Your task to perform on an android device: Do I have any events tomorrow? Image 0: 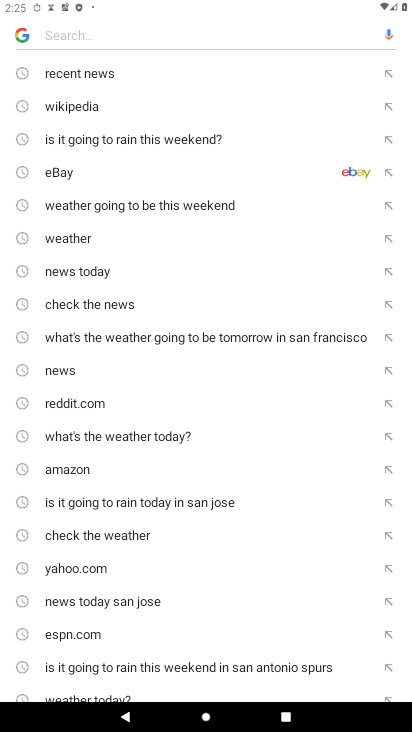
Step 0: press home button
Your task to perform on an android device: Do I have any events tomorrow? Image 1: 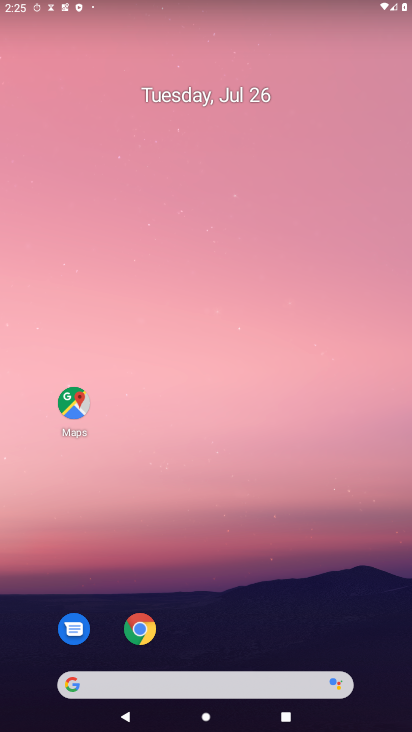
Step 1: drag from (245, 563) to (406, 303)
Your task to perform on an android device: Do I have any events tomorrow? Image 2: 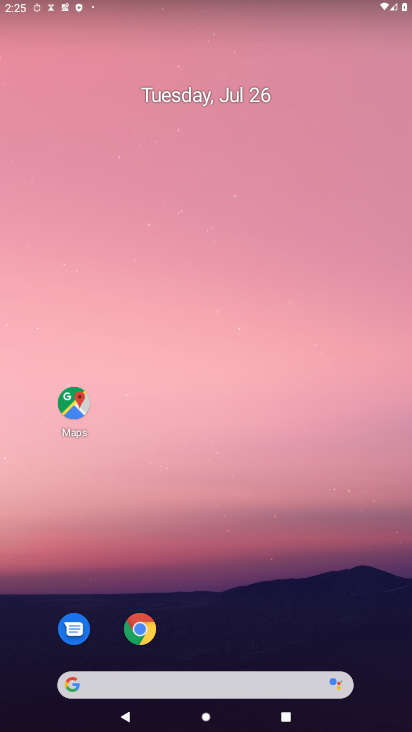
Step 2: drag from (254, 685) to (410, 291)
Your task to perform on an android device: Do I have any events tomorrow? Image 3: 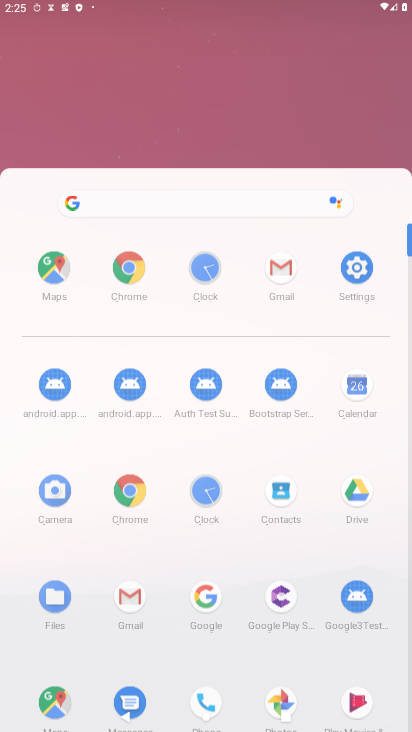
Step 3: click (361, 221)
Your task to perform on an android device: Do I have any events tomorrow? Image 4: 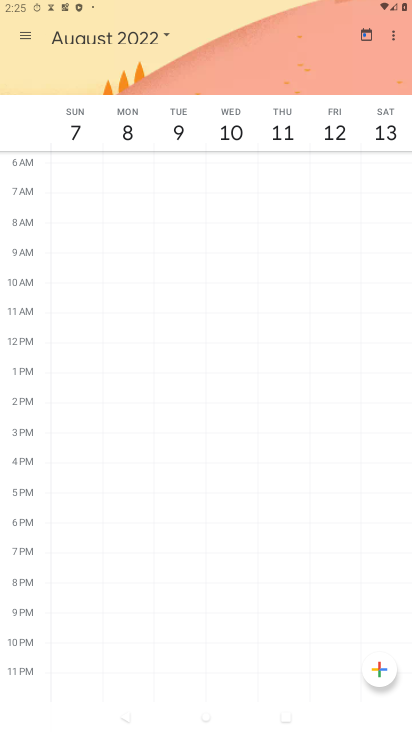
Step 4: click (161, 27)
Your task to perform on an android device: Do I have any events tomorrow? Image 5: 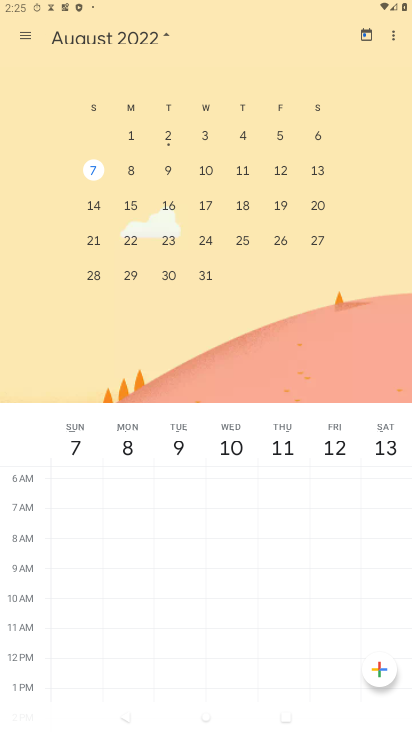
Step 5: drag from (73, 179) to (406, 197)
Your task to perform on an android device: Do I have any events tomorrow? Image 6: 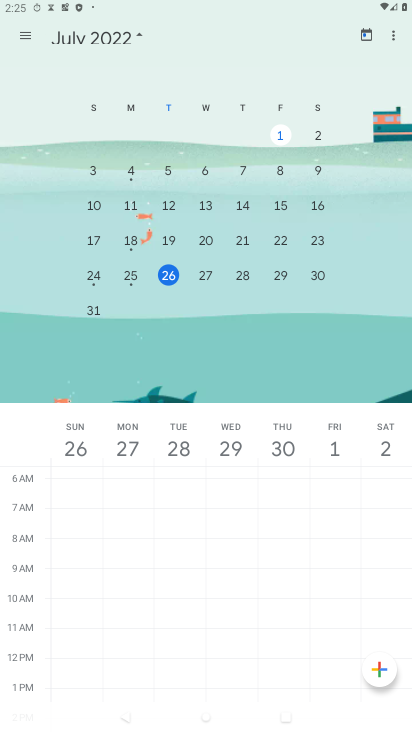
Step 6: click (206, 277)
Your task to perform on an android device: Do I have any events tomorrow? Image 7: 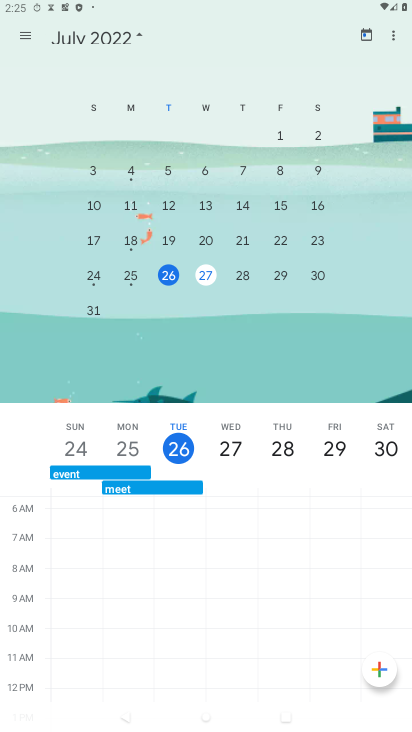
Step 7: task complete